Your task to perform on an android device: Go to Reddit.com Image 0: 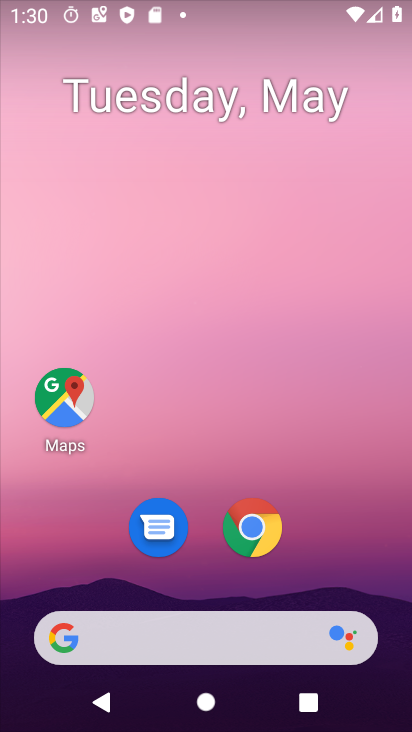
Step 0: press home button
Your task to perform on an android device: Go to Reddit.com Image 1: 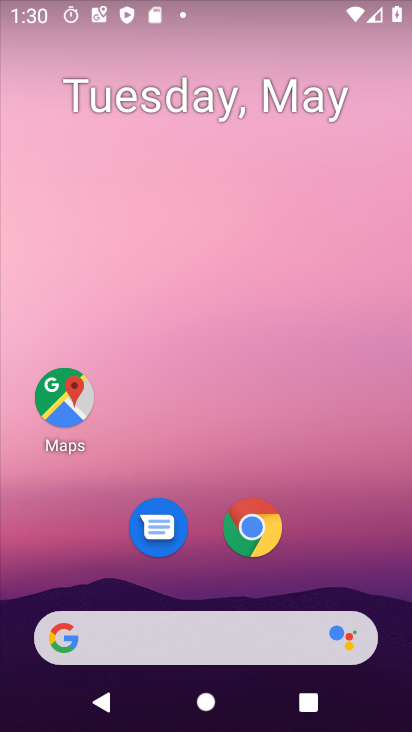
Step 1: drag from (264, 664) to (262, 202)
Your task to perform on an android device: Go to Reddit.com Image 2: 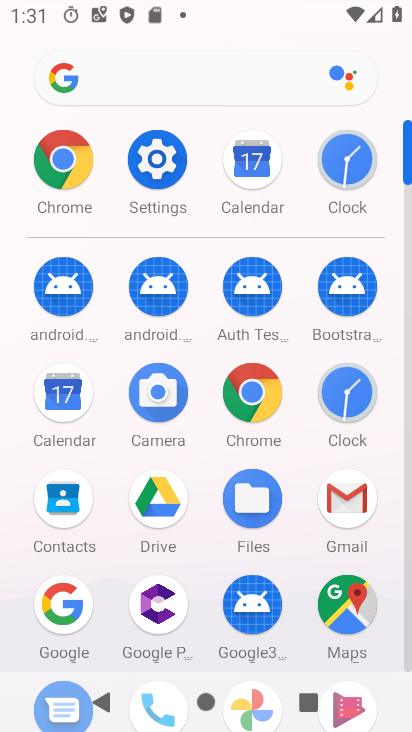
Step 2: click (79, 138)
Your task to perform on an android device: Go to Reddit.com Image 3: 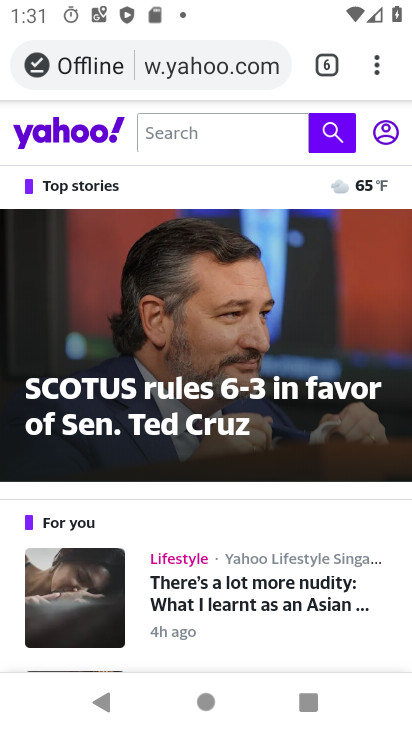
Step 3: click (191, 54)
Your task to perform on an android device: Go to Reddit.com Image 4: 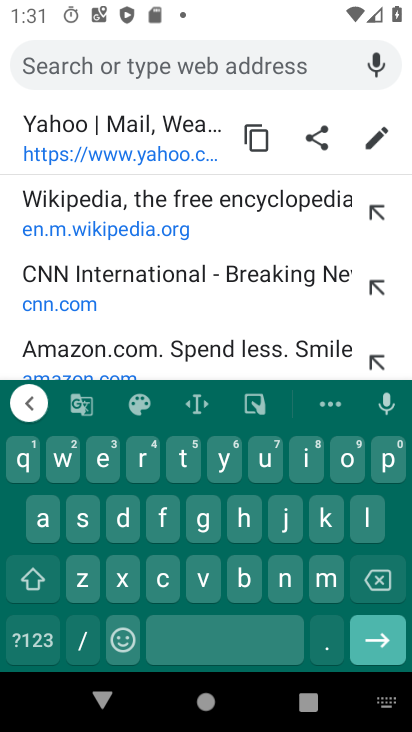
Step 4: click (194, 62)
Your task to perform on an android device: Go to Reddit.com Image 5: 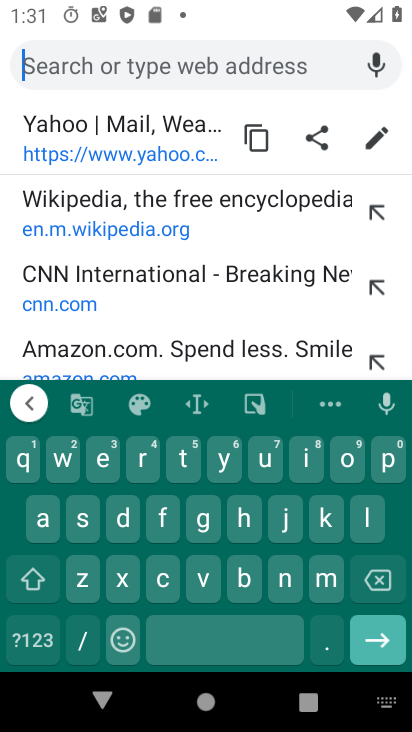
Step 5: click (132, 466)
Your task to perform on an android device: Go to Reddit.com Image 6: 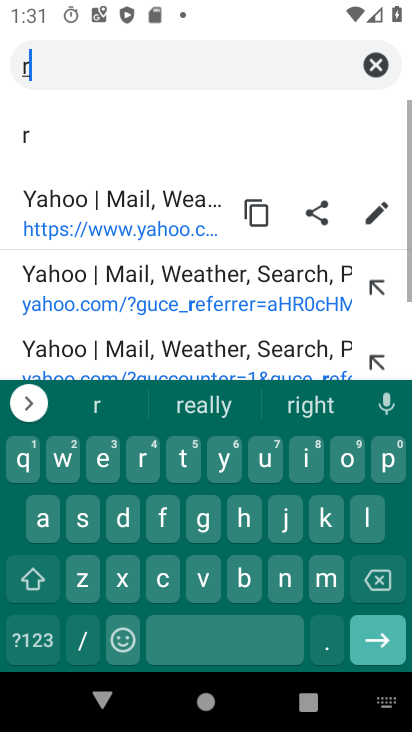
Step 6: click (106, 478)
Your task to perform on an android device: Go to Reddit.com Image 7: 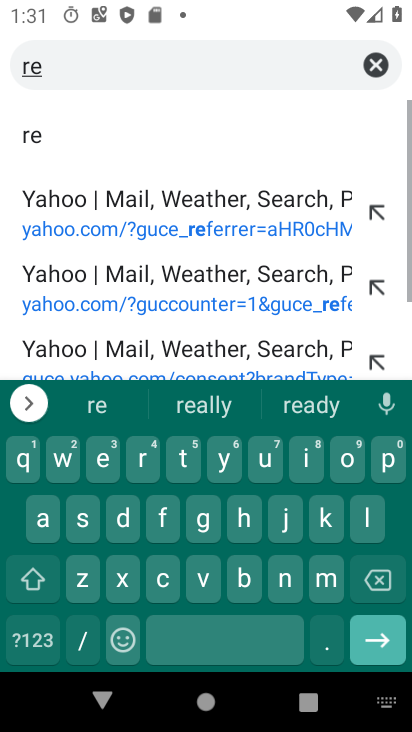
Step 7: click (125, 531)
Your task to perform on an android device: Go to Reddit.com Image 8: 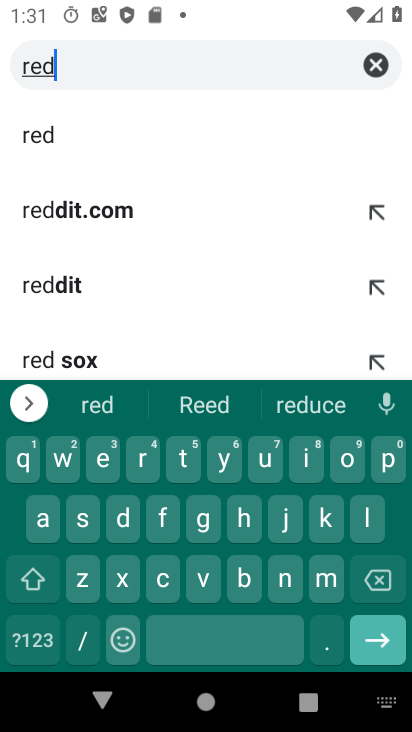
Step 8: click (109, 204)
Your task to perform on an android device: Go to Reddit.com Image 9: 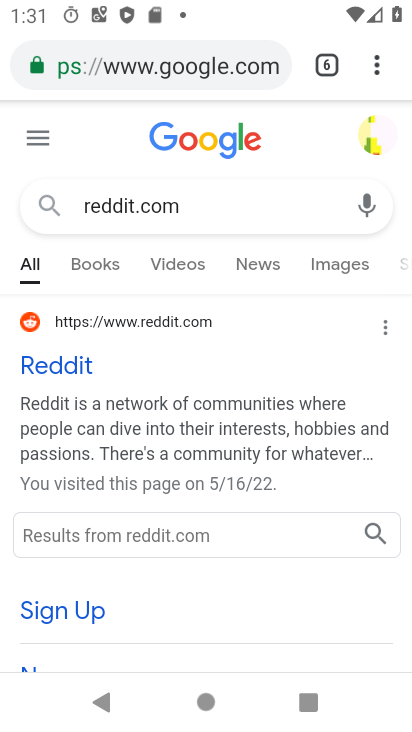
Step 9: task complete